Your task to perform on an android device: Turn off the flashlight Image 0: 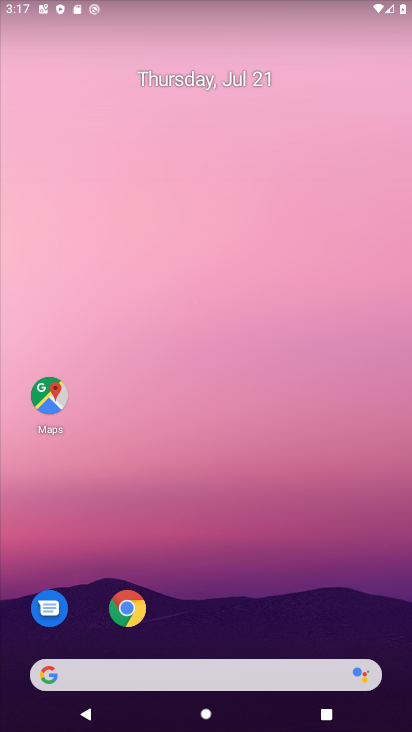
Step 0: drag from (274, 645) to (410, 263)
Your task to perform on an android device: Turn off the flashlight Image 1: 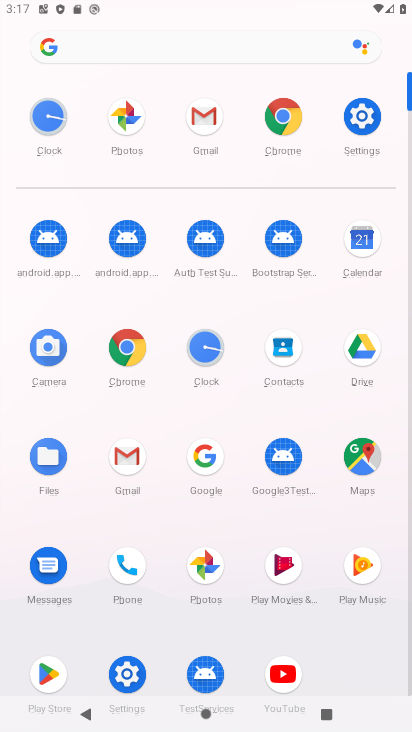
Step 1: task complete